Your task to perform on an android device: uninstall "LiveIn - Share Your Moment" Image 0: 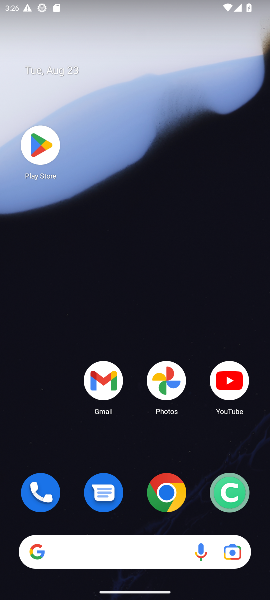
Step 0: click (39, 160)
Your task to perform on an android device: uninstall "LiveIn - Share Your Moment" Image 1: 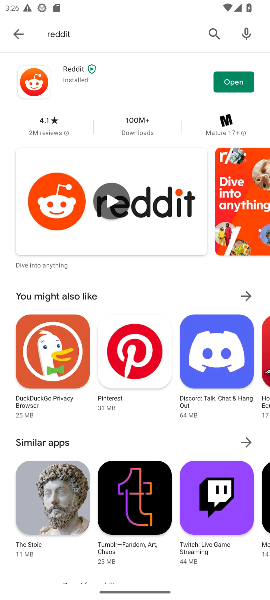
Step 1: click (213, 41)
Your task to perform on an android device: uninstall "LiveIn - Share Your Moment" Image 2: 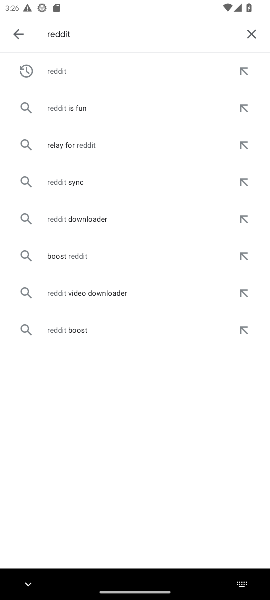
Step 2: click (241, 41)
Your task to perform on an android device: uninstall "LiveIn - Share Your Moment" Image 3: 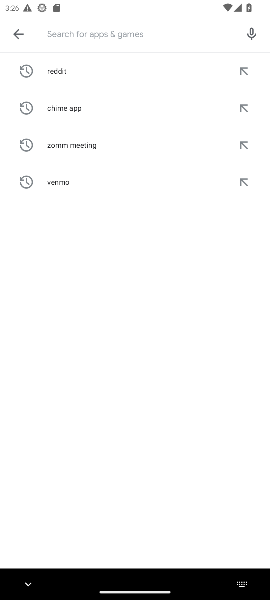
Step 3: type "livein"
Your task to perform on an android device: uninstall "LiveIn - Share Your Moment" Image 4: 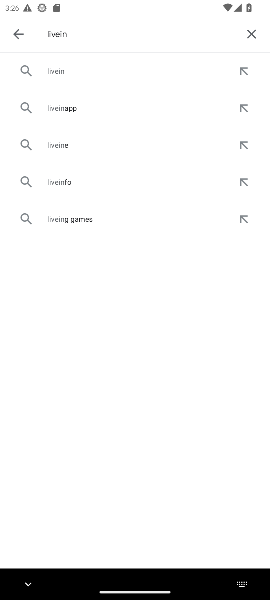
Step 4: click (82, 77)
Your task to perform on an android device: uninstall "LiveIn - Share Your Moment" Image 5: 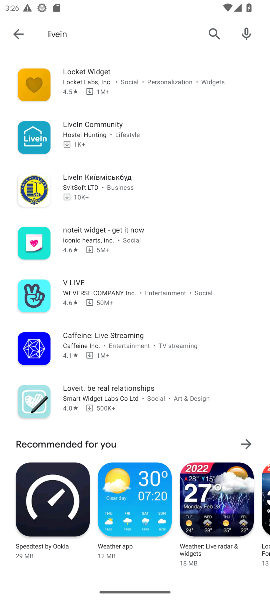
Step 5: click (120, 142)
Your task to perform on an android device: uninstall "LiveIn - Share Your Moment" Image 6: 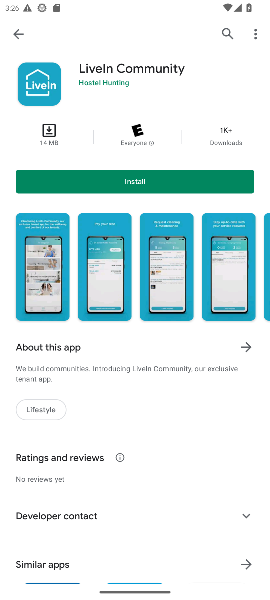
Step 6: click (197, 172)
Your task to perform on an android device: uninstall "LiveIn - Share Your Moment" Image 7: 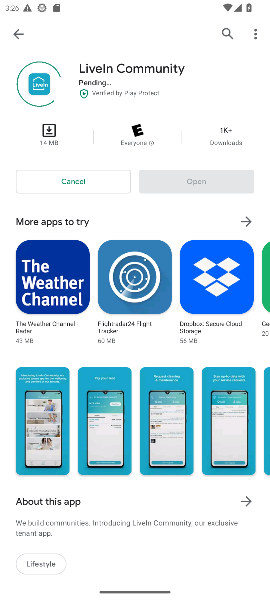
Step 7: task complete